Your task to perform on an android device: open a bookmark in the chrome app Image 0: 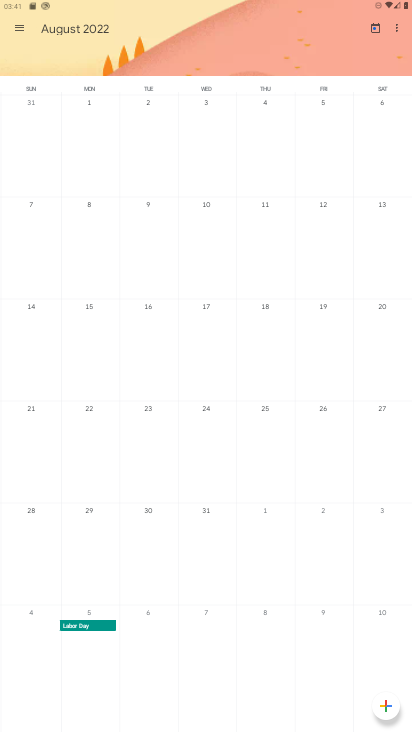
Step 0: press home button
Your task to perform on an android device: open a bookmark in the chrome app Image 1: 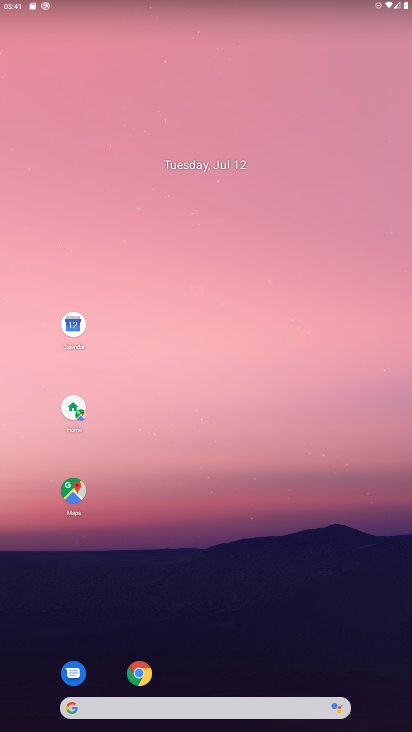
Step 1: drag from (233, 664) to (214, 316)
Your task to perform on an android device: open a bookmark in the chrome app Image 2: 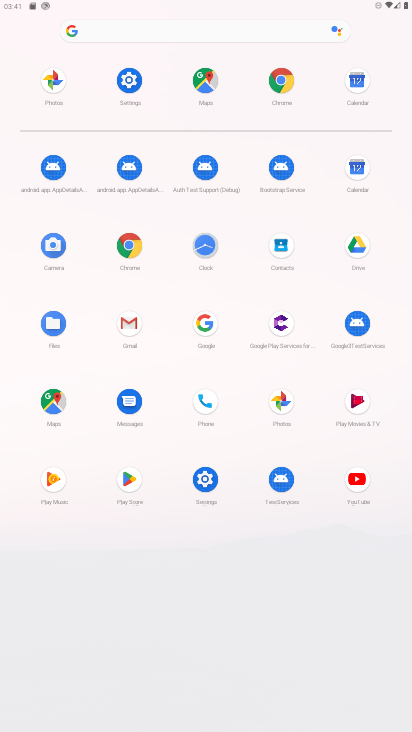
Step 2: click (139, 231)
Your task to perform on an android device: open a bookmark in the chrome app Image 3: 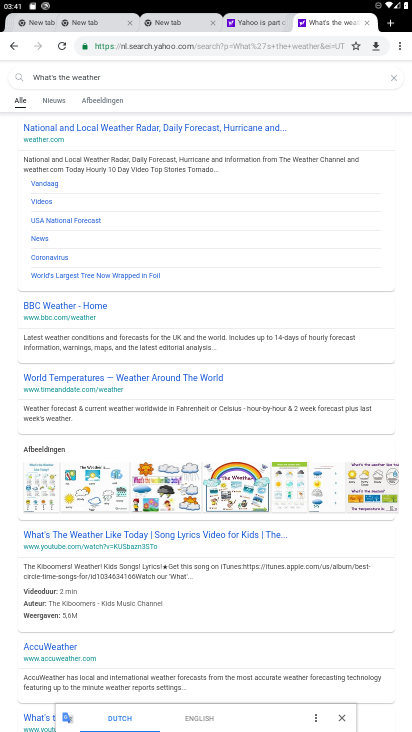
Step 3: click (405, 42)
Your task to perform on an android device: open a bookmark in the chrome app Image 4: 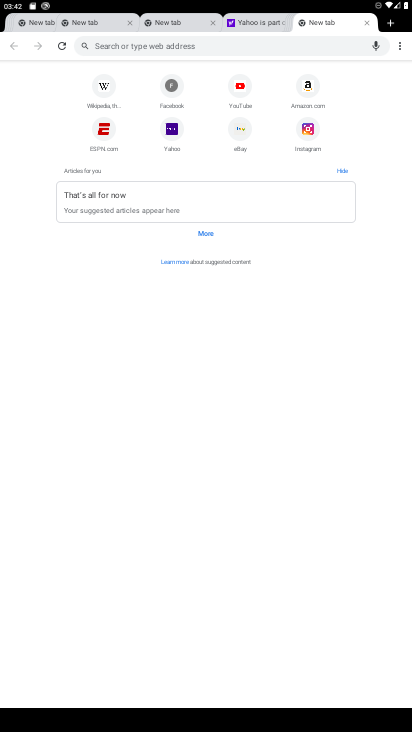
Step 4: click (399, 48)
Your task to perform on an android device: open a bookmark in the chrome app Image 5: 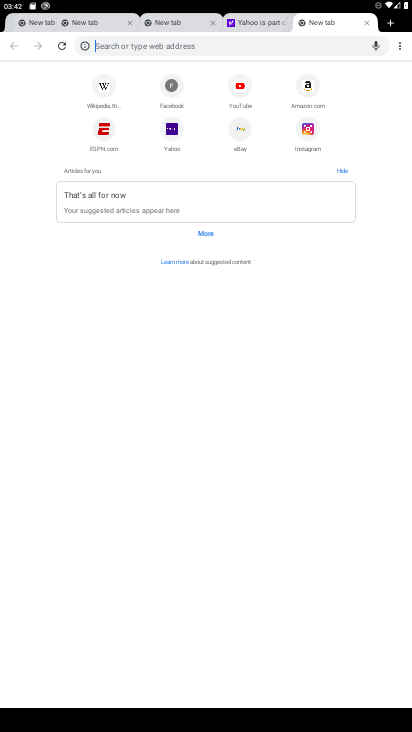
Step 5: click (411, 45)
Your task to perform on an android device: open a bookmark in the chrome app Image 6: 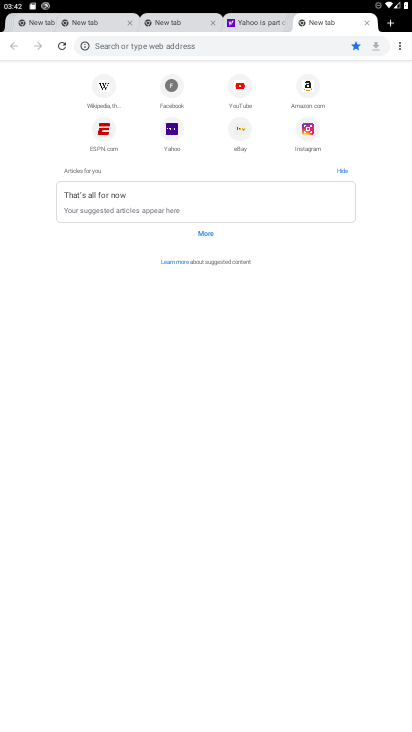
Step 6: click (395, 43)
Your task to perform on an android device: open a bookmark in the chrome app Image 7: 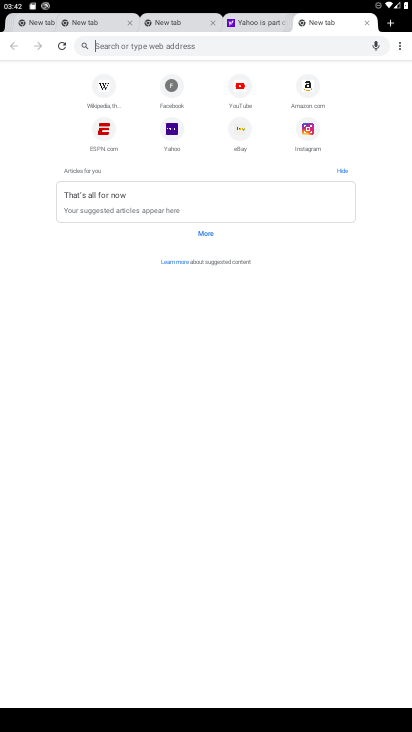
Step 7: click (401, 43)
Your task to perform on an android device: open a bookmark in the chrome app Image 8: 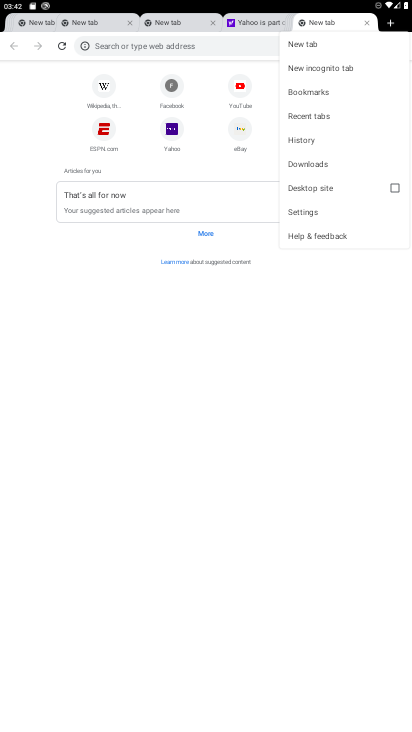
Step 8: click (330, 89)
Your task to perform on an android device: open a bookmark in the chrome app Image 9: 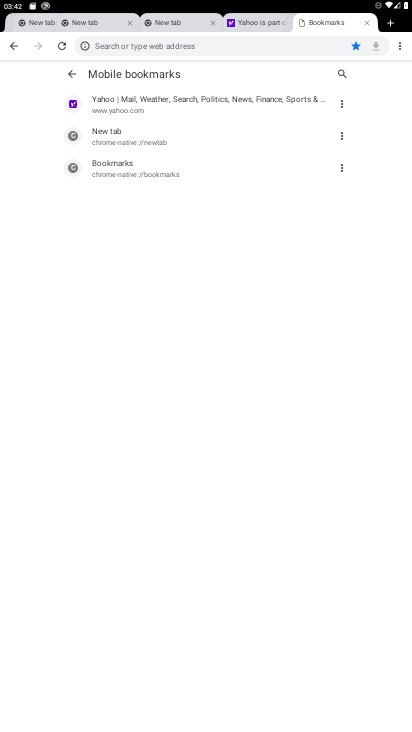
Step 9: task complete